Your task to perform on an android device: How much does a 3 bedroom apartment rent for in Houston? Image 0: 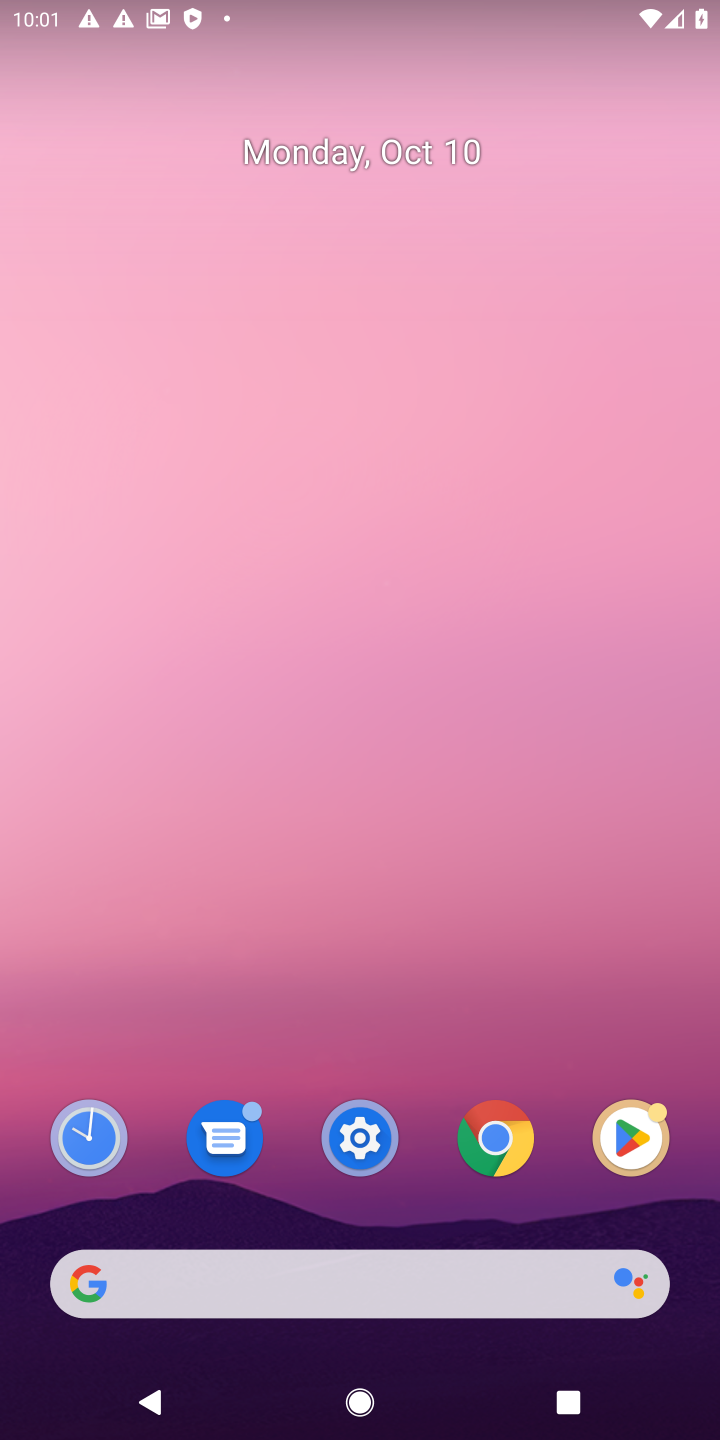
Step 0: click (469, 1170)
Your task to perform on an android device: How much does a 3 bedroom apartment rent for in Houston? Image 1: 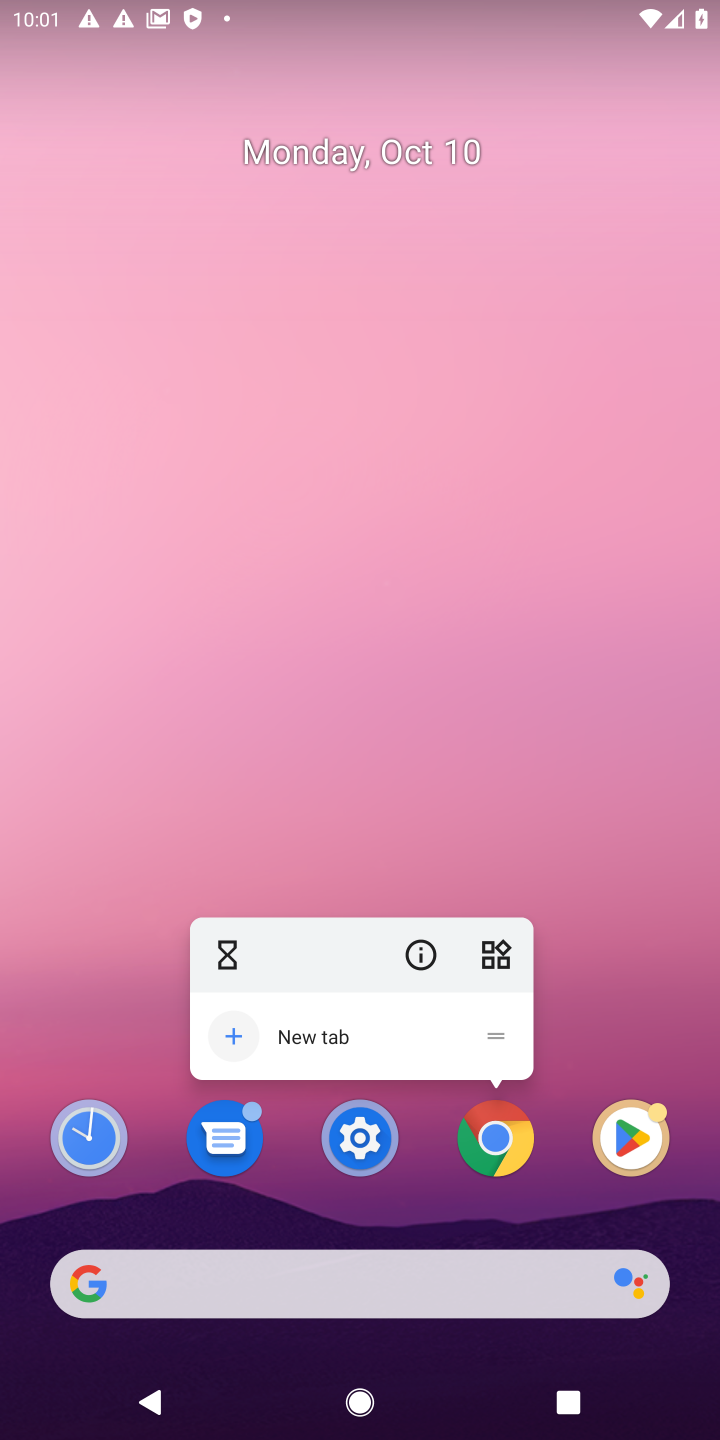
Step 1: click (493, 1145)
Your task to perform on an android device: How much does a 3 bedroom apartment rent for in Houston? Image 2: 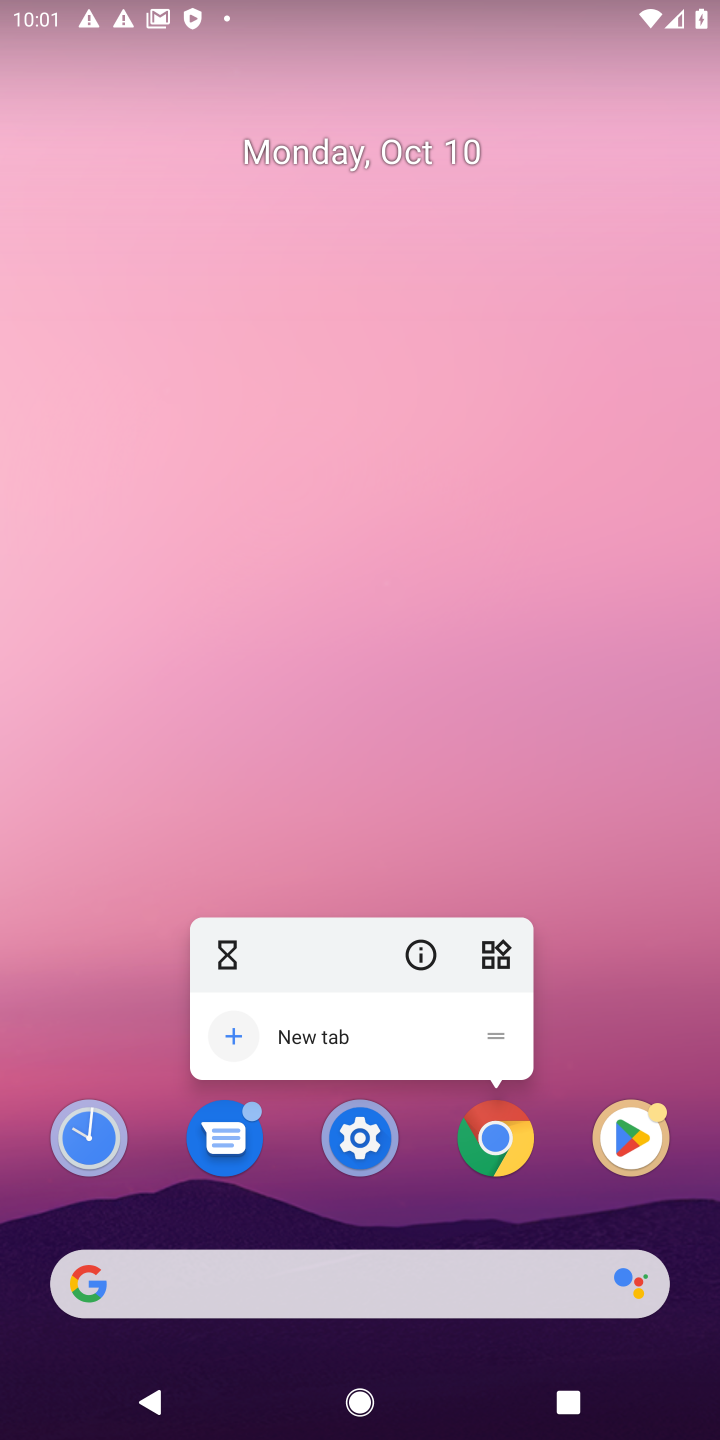
Step 2: click (516, 1158)
Your task to perform on an android device: How much does a 3 bedroom apartment rent for in Houston? Image 3: 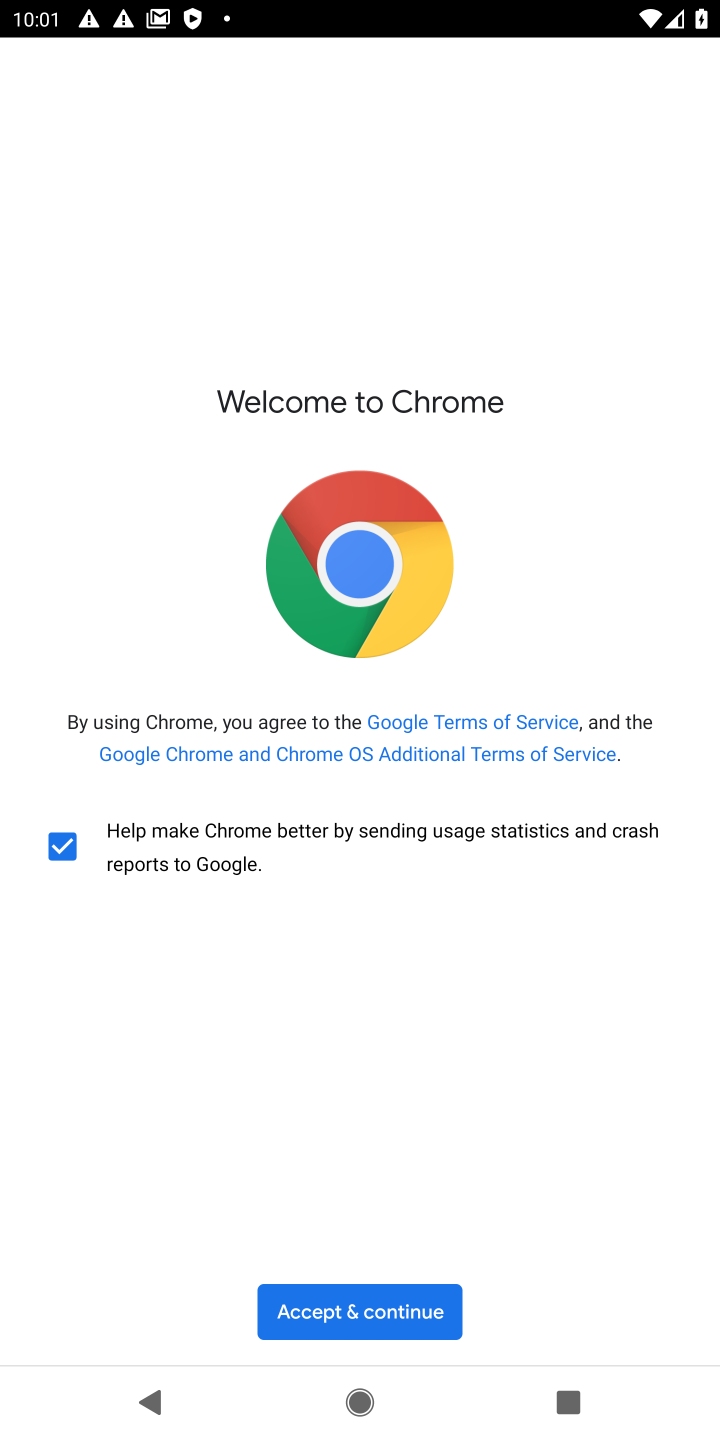
Step 3: click (392, 1315)
Your task to perform on an android device: How much does a 3 bedroom apartment rent for in Houston? Image 4: 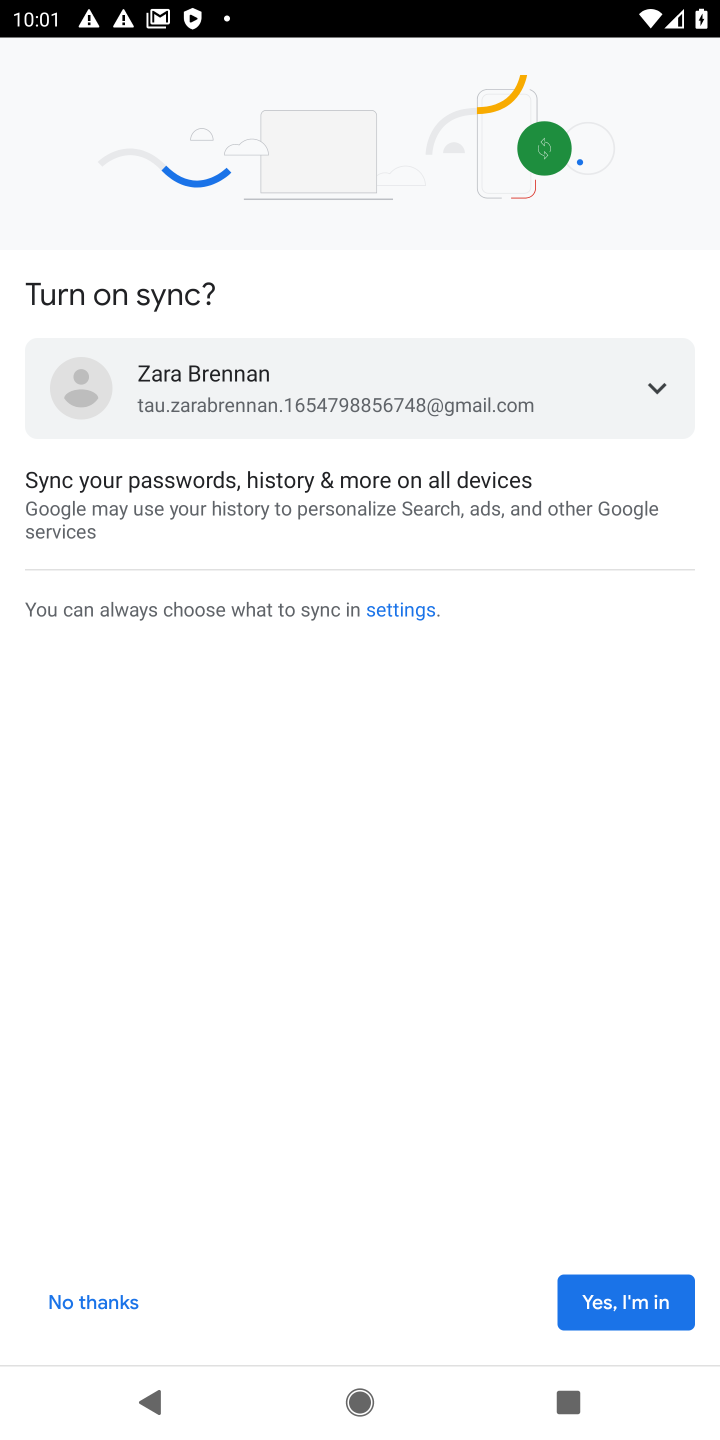
Step 4: click (607, 1310)
Your task to perform on an android device: How much does a 3 bedroom apartment rent for in Houston? Image 5: 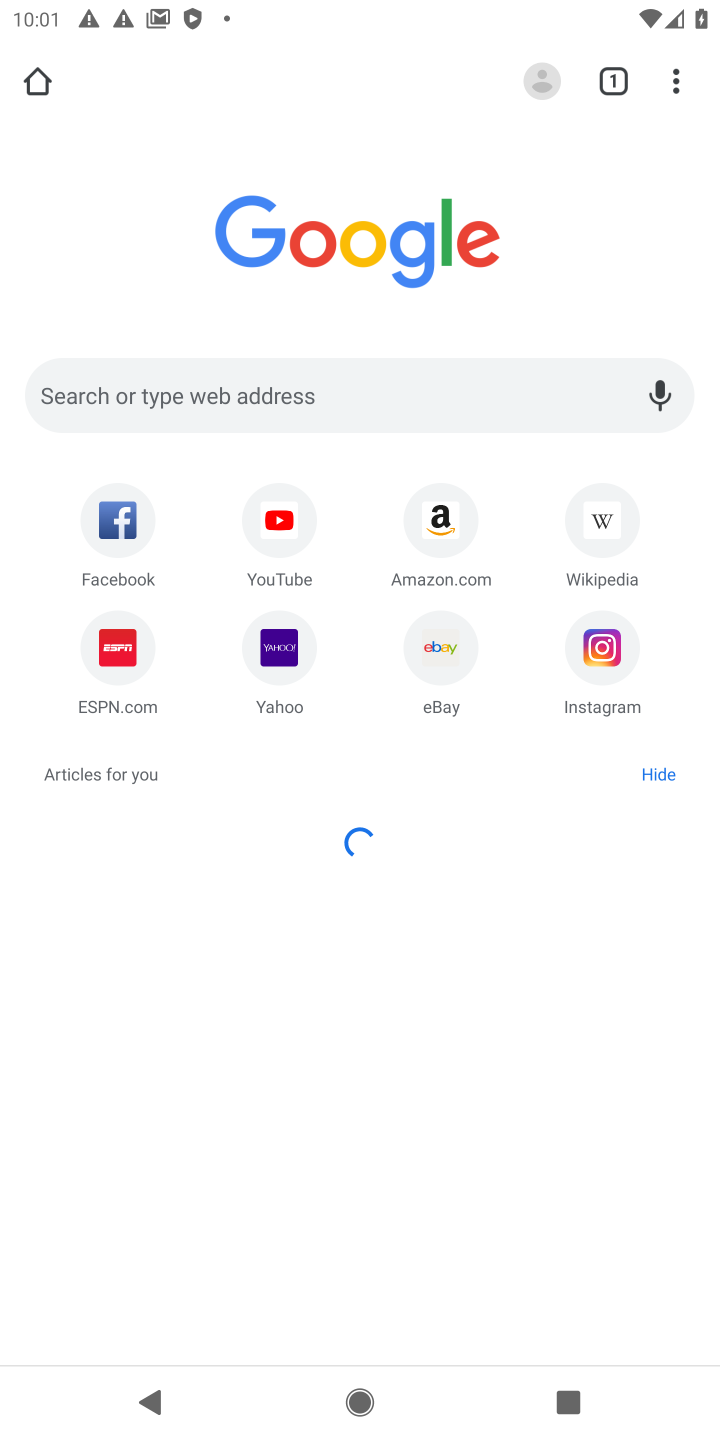
Step 5: click (216, 405)
Your task to perform on an android device: How much does a 3 bedroom apartment rent for in Houston? Image 6: 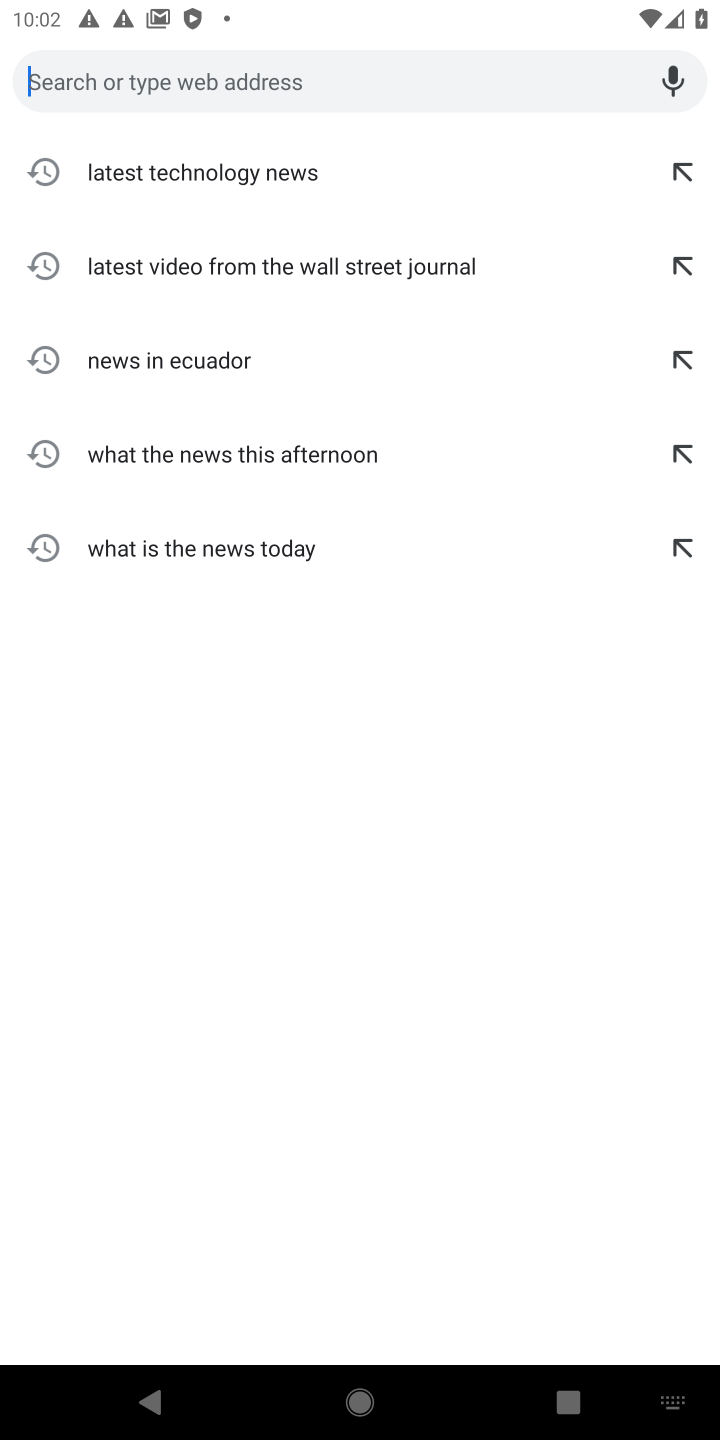
Step 6: type "3 bedroom apartment rent in Houston"
Your task to perform on an android device: How much does a 3 bedroom apartment rent for in Houston? Image 7: 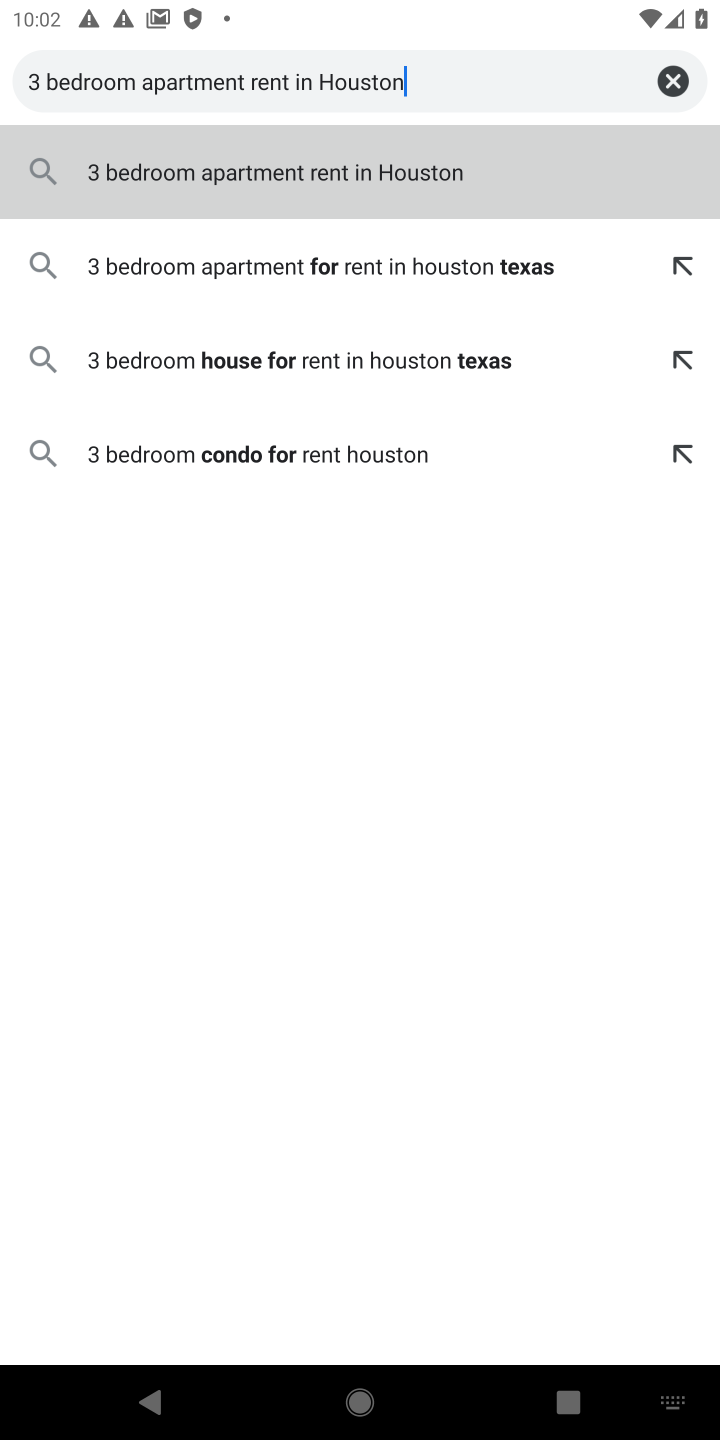
Step 7: type ""
Your task to perform on an android device: How much does a 3 bedroom apartment rent for in Houston? Image 8: 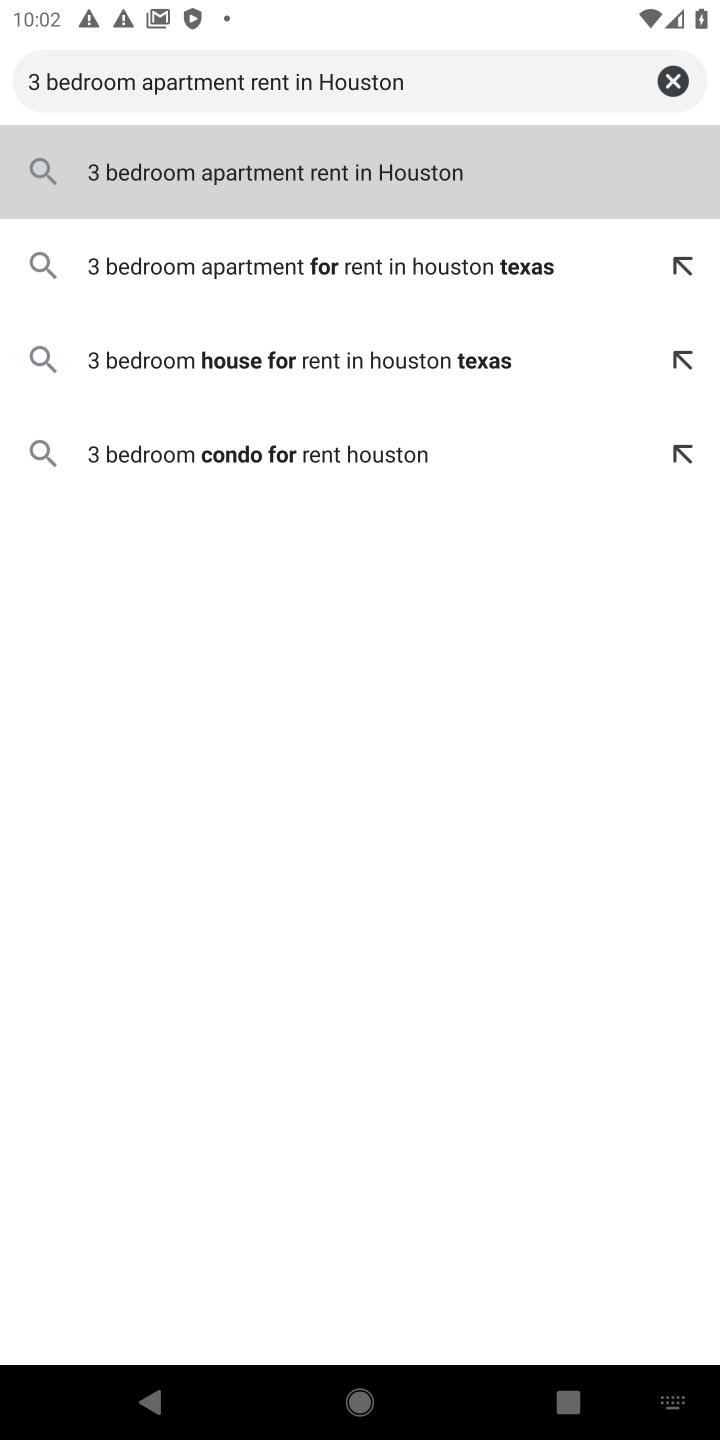
Step 8: press enter
Your task to perform on an android device: How much does a 3 bedroom apartment rent for in Houston? Image 9: 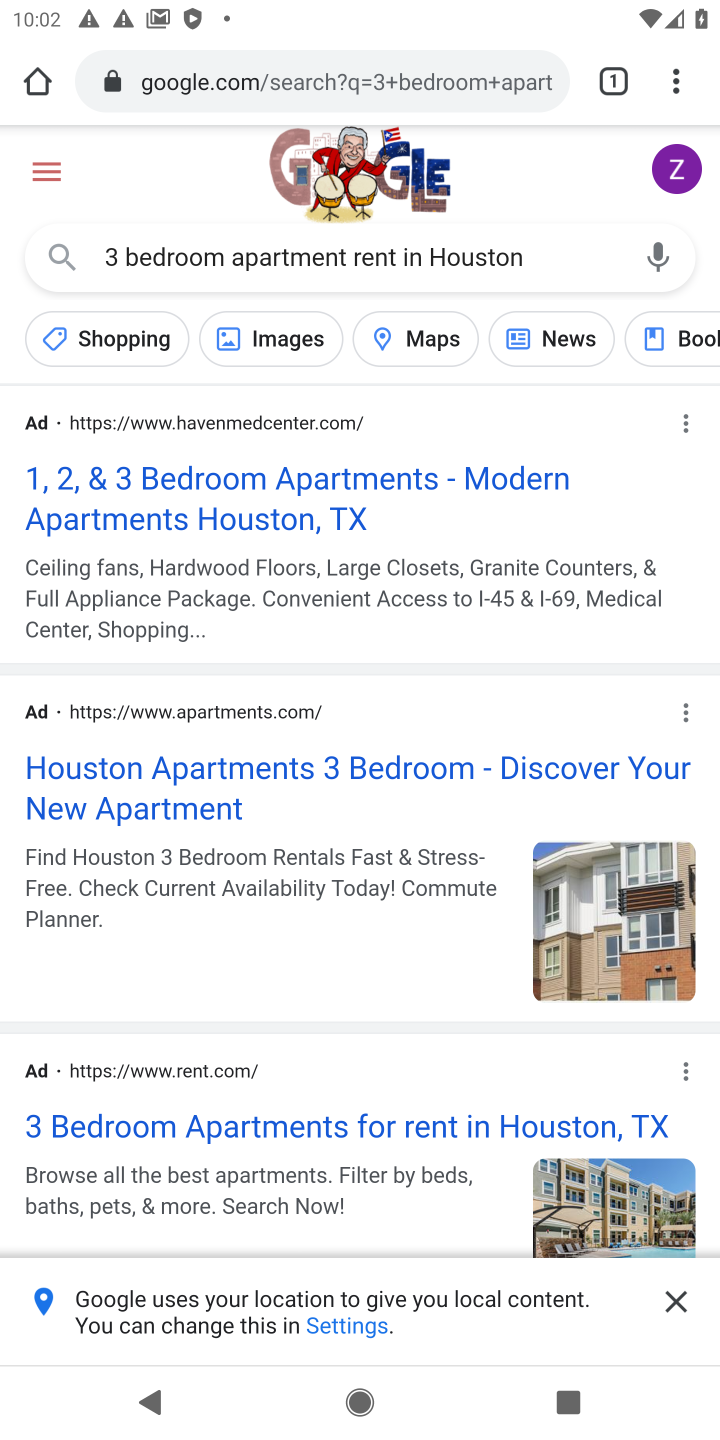
Step 9: drag from (375, 871) to (389, 688)
Your task to perform on an android device: How much does a 3 bedroom apartment rent for in Houston? Image 10: 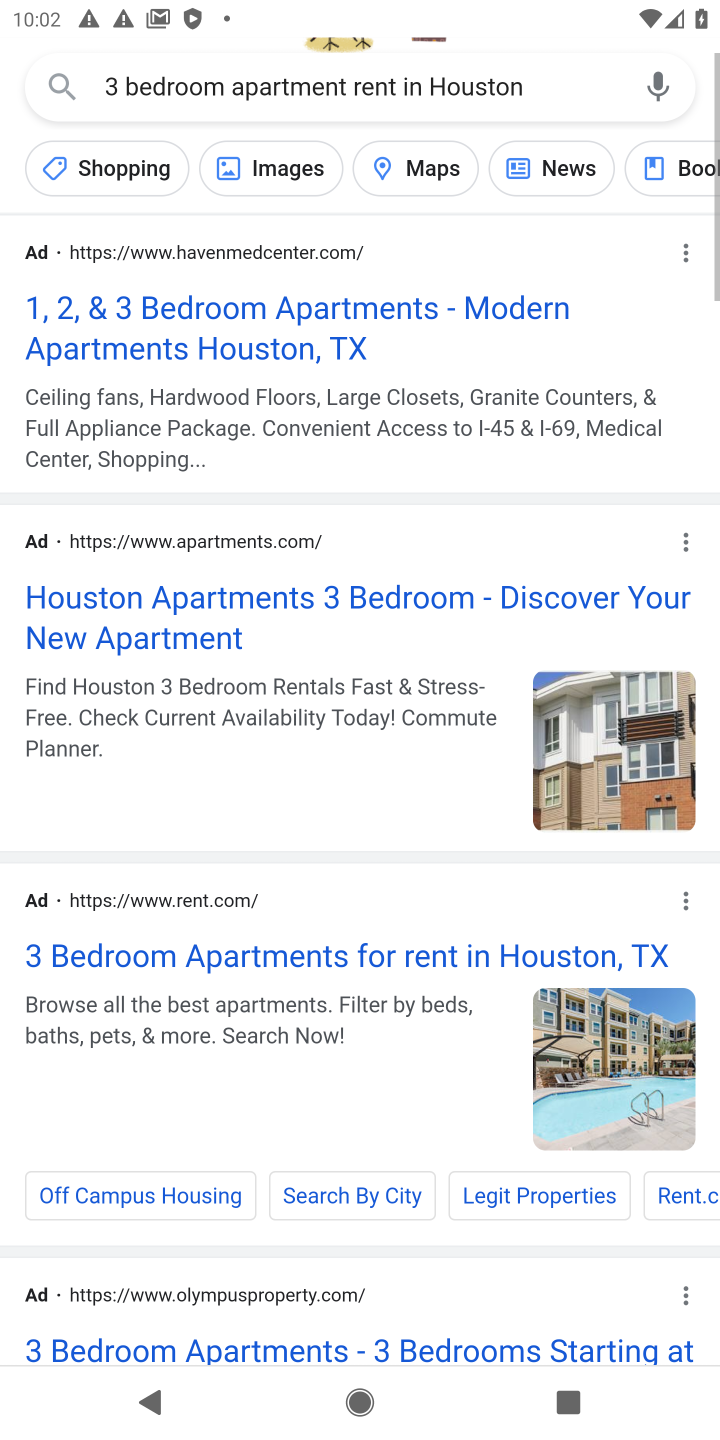
Step 10: click (162, 730)
Your task to perform on an android device: How much does a 3 bedroom apartment rent for in Houston? Image 11: 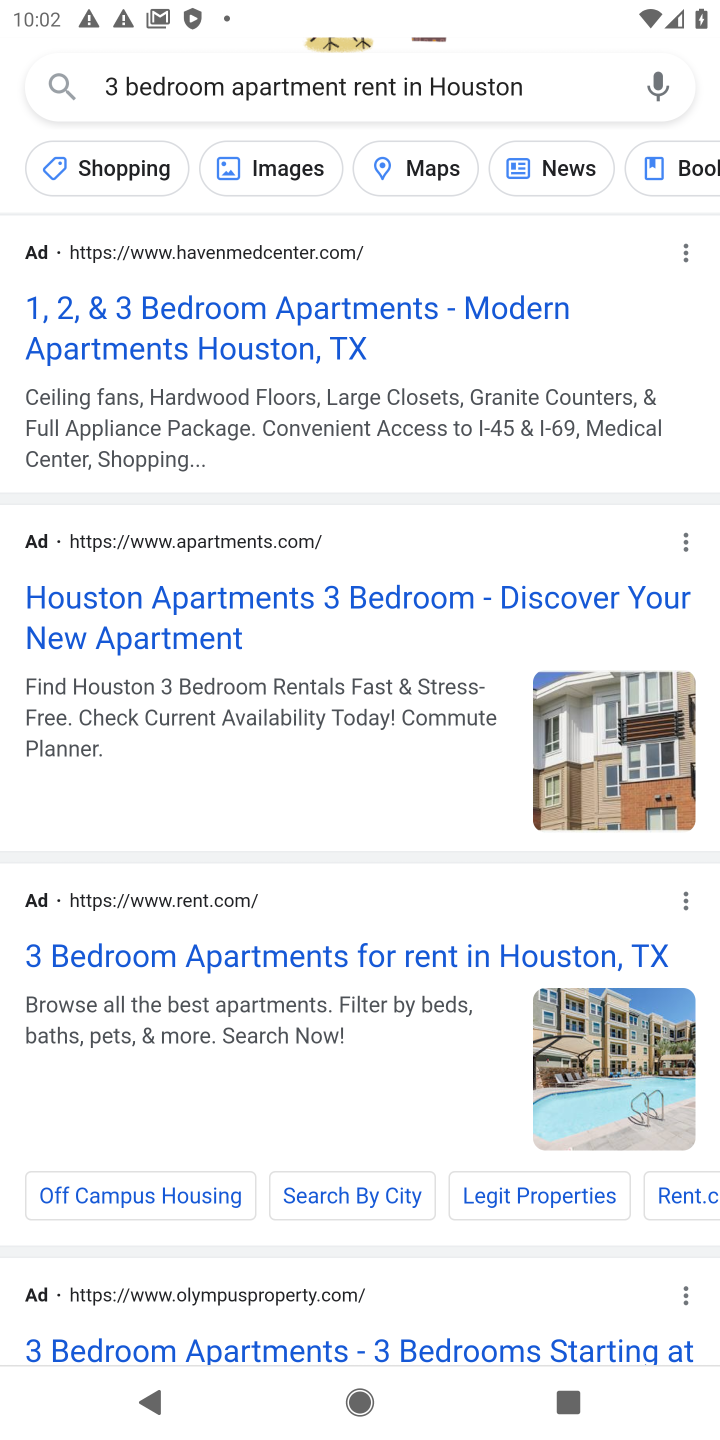
Step 11: click (176, 623)
Your task to perform on an android device: How much does a 3 bedroom apartment rent for in Houston? Image 12: 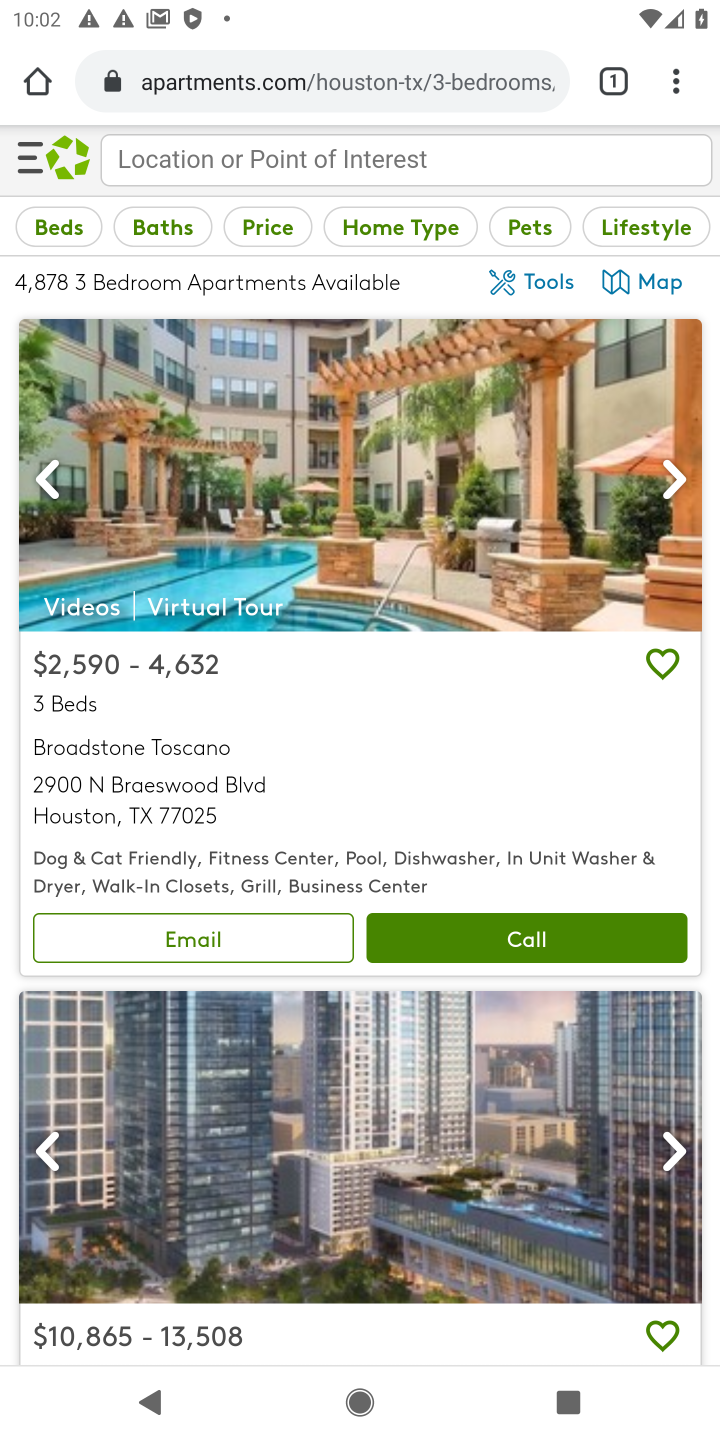
Step 12: drag from (317, 821) to (305, 481)
Your task to perform on an android device: How much does a 3 bedroom apartment rent for in Houston? Image 13: 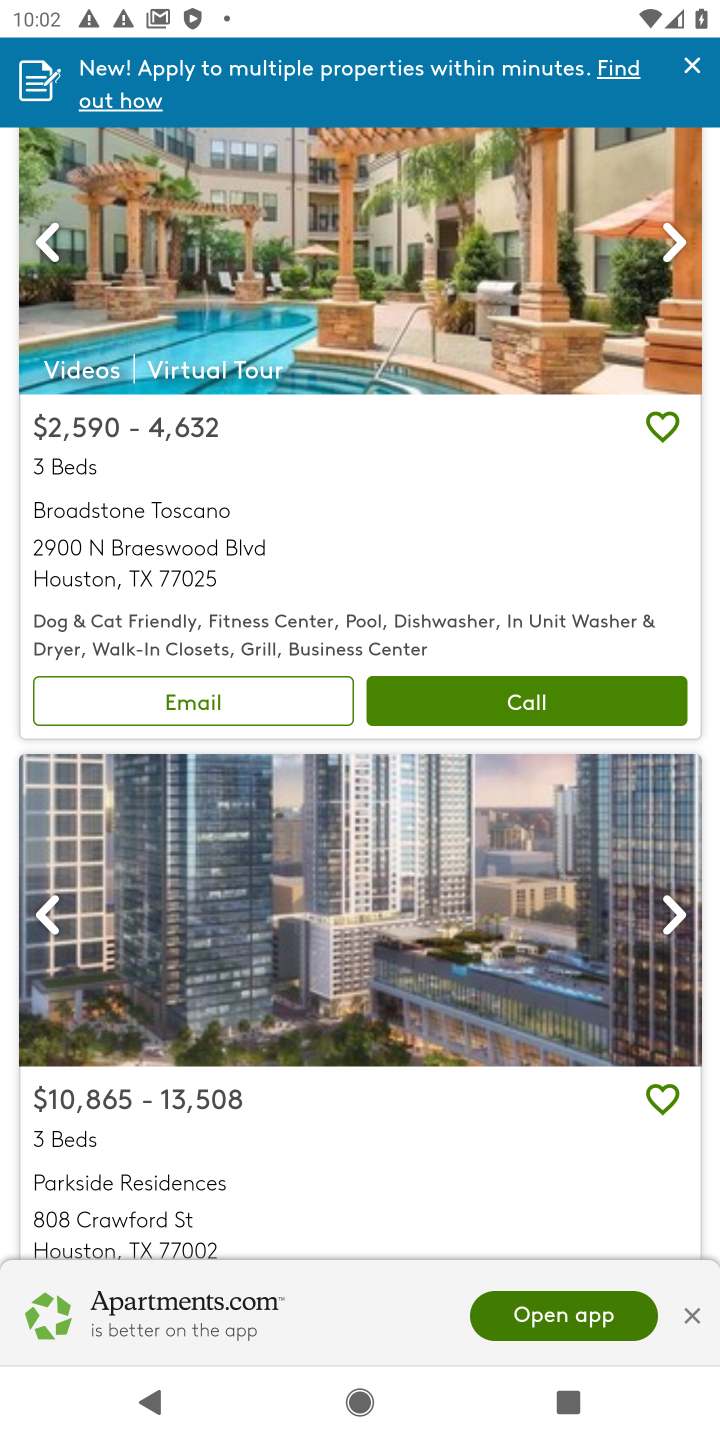
Step 13: click (274, 443)
Your task to perform on an android device: How much does a 3 bedroom apartment rent for in Houston? Image 14: 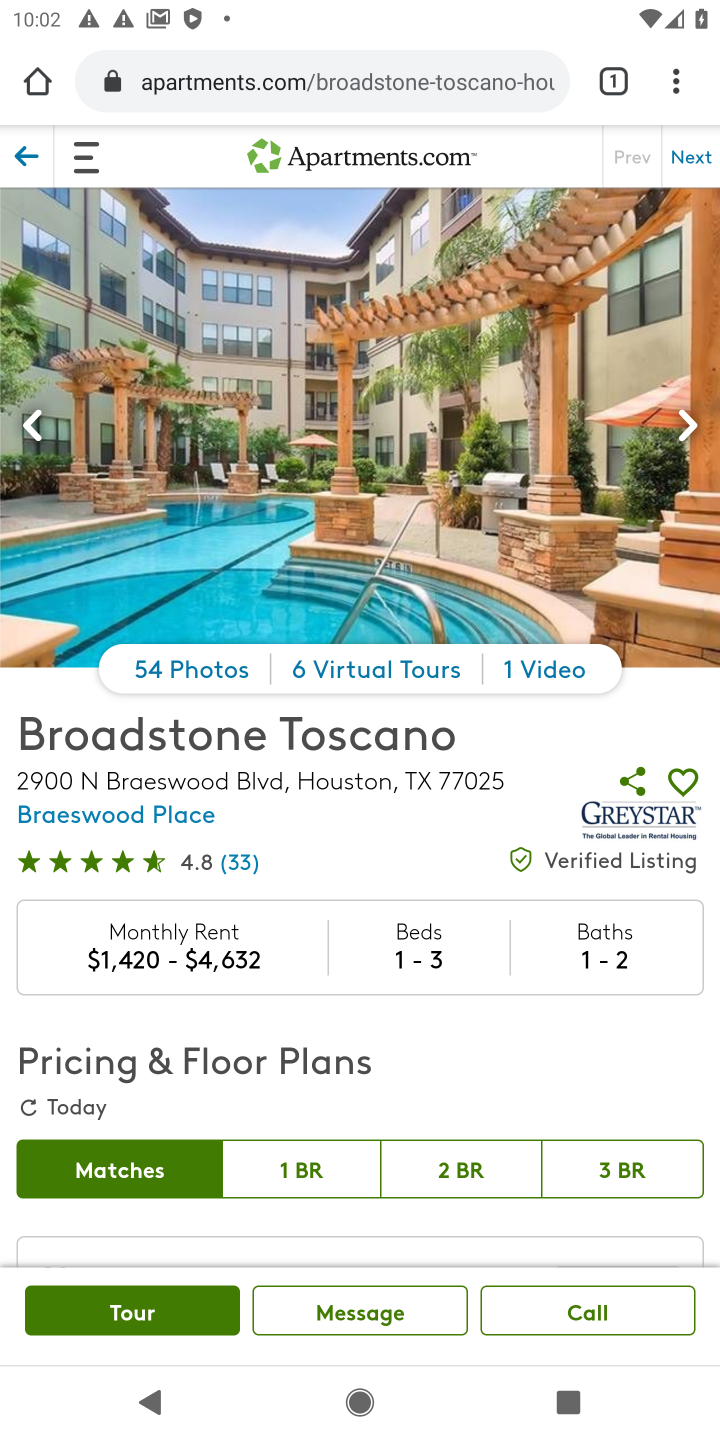
Step 14: drag from (340, 826) to (344, 224)
Your task to perform on an android device: How much does a 3 bedroom apartment rent for in Houston? Image 15: 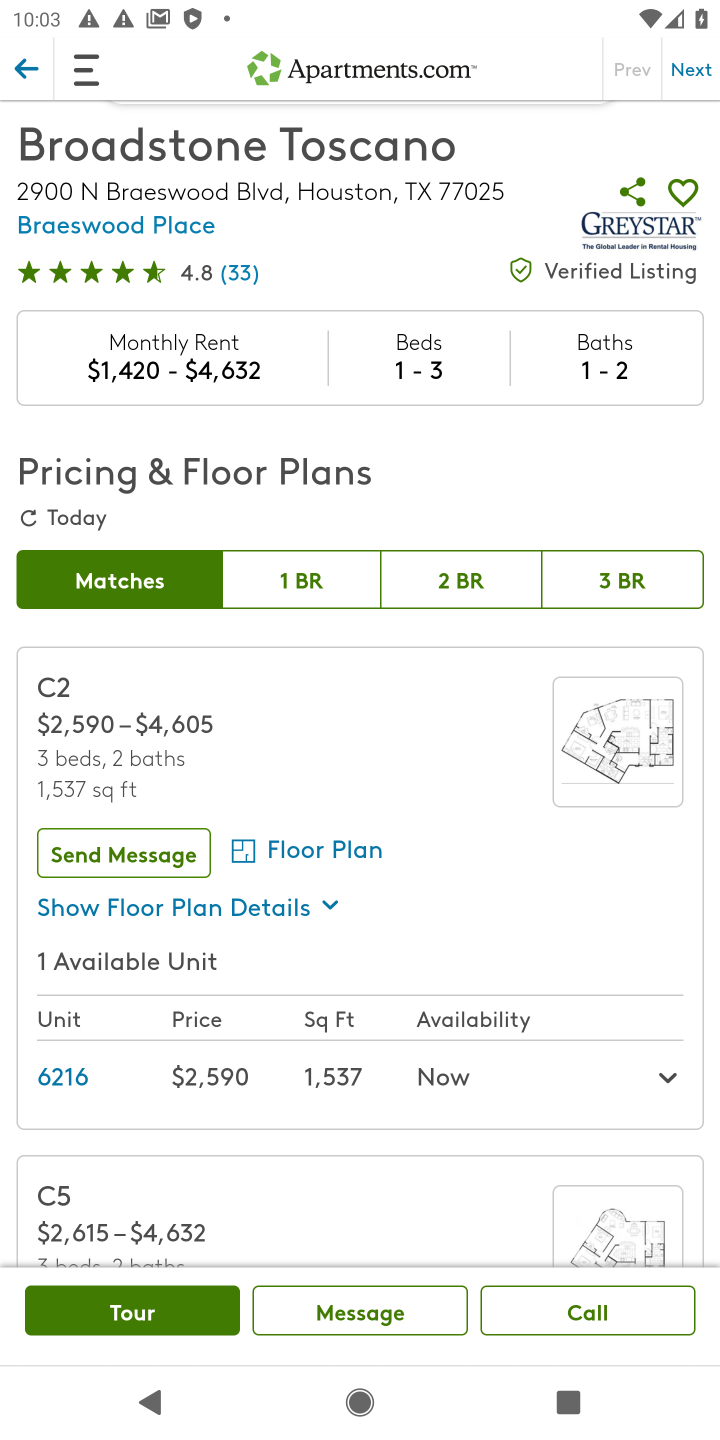
Step 15: drag from (336, 877) to (378, 389)
Your task to perform on an android device: How much does a 3 bedroom apartment rent for in Houston? Image 16: 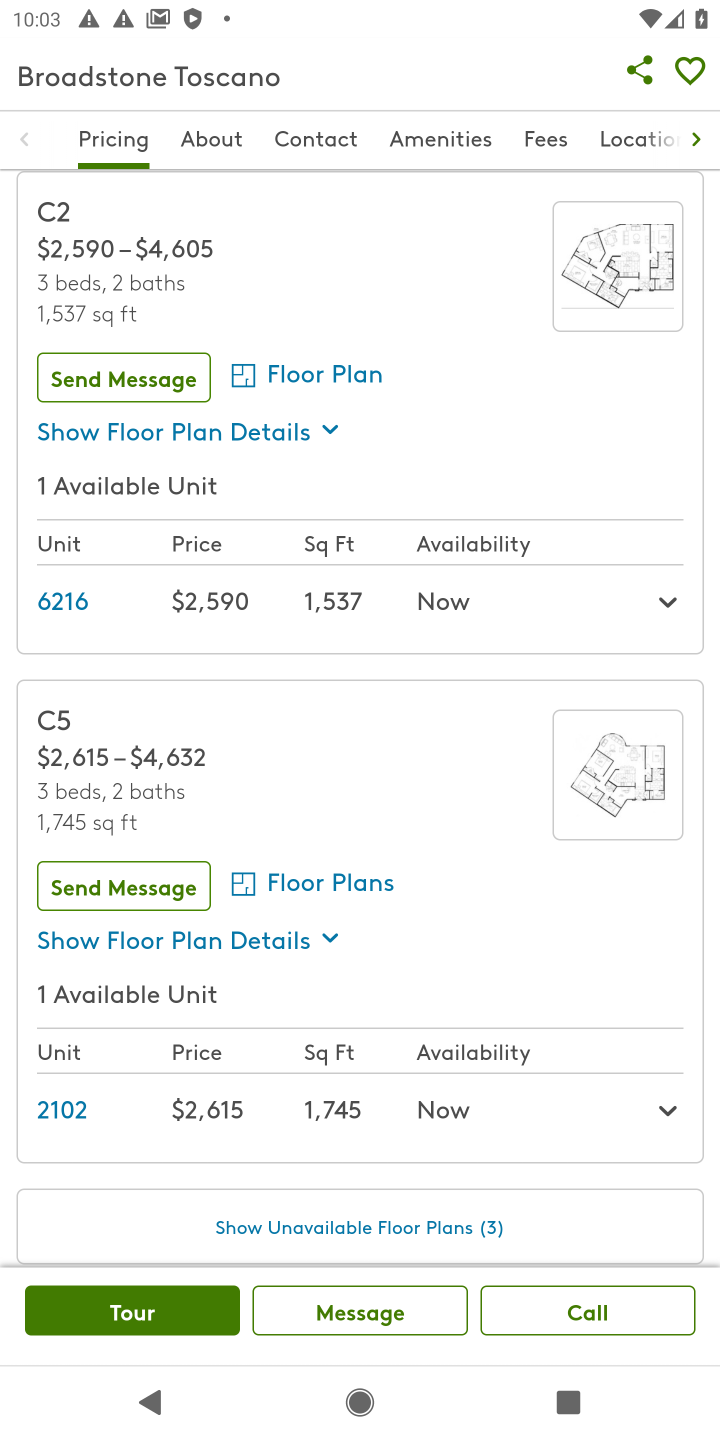
Step 16: click (391, 814)
Your task to perform on an android device: How much does a 3 bedroom apartment rent for in Houston? Image 17: 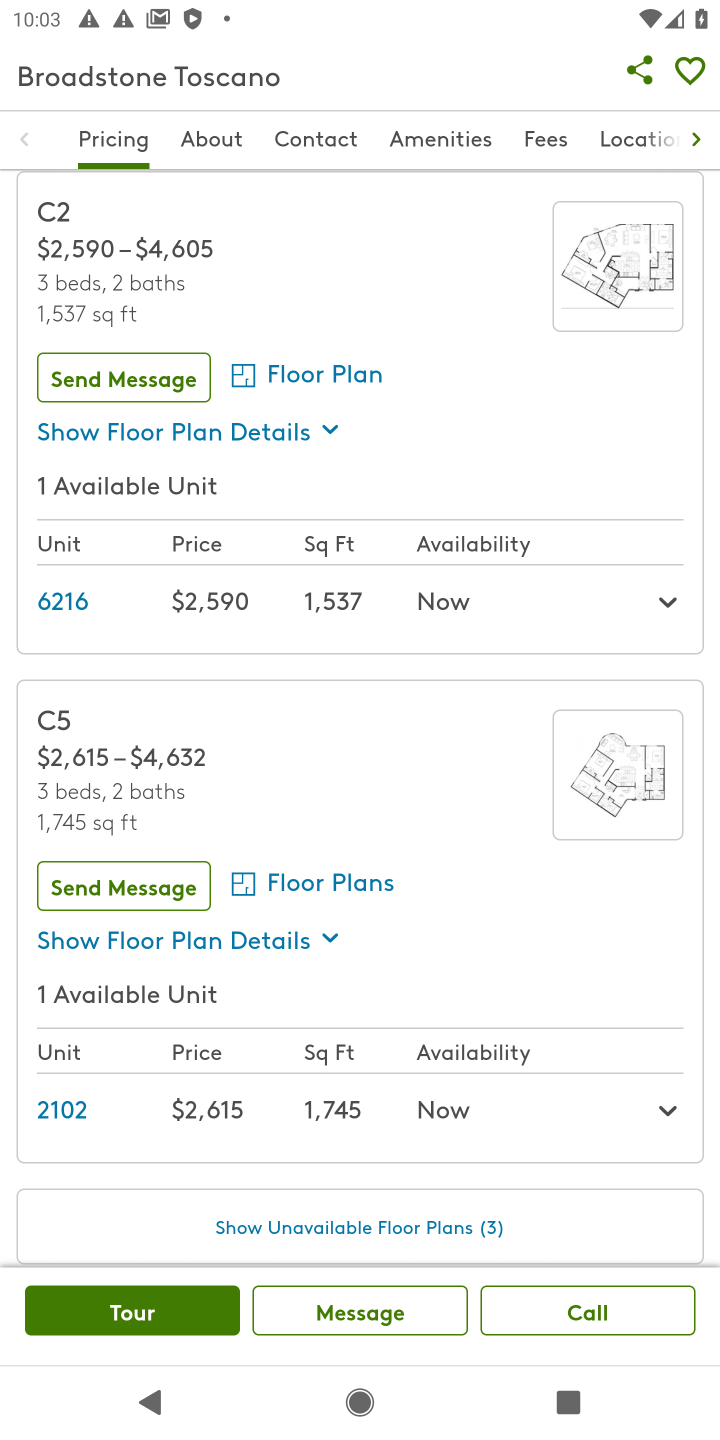
Step 17: task complete